Your task to perform on an android device: find snoozed emails in the gmail app Image 0: 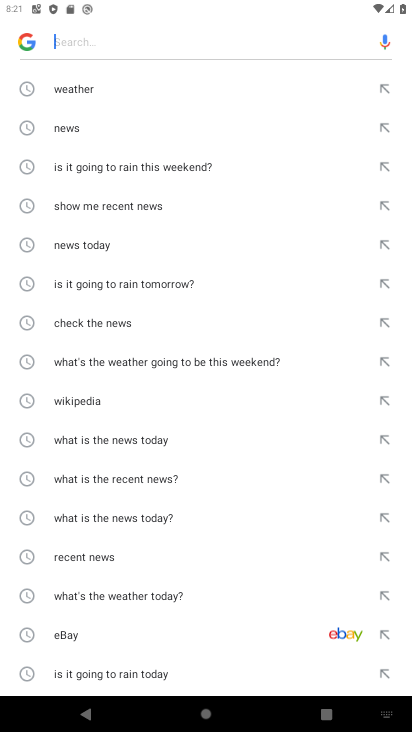
Step 0: press back button
Your task to perform on an android device: find snoozed emails in the gmail app Image 1: 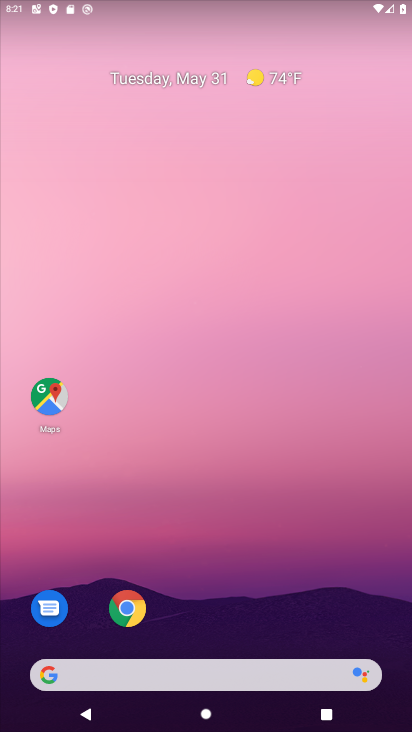
Step 1: drag from (196, 647) to (216, 227)
Your task to perform on an android device: find snoozed emails in the gmail app Image 2: 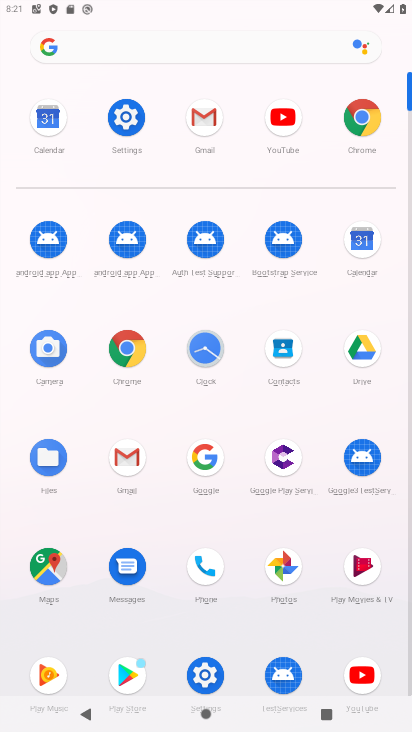
Step 2: click (129, 455)
Your task to perform on an android device: find snoozed emails in the gmail app Image 3: 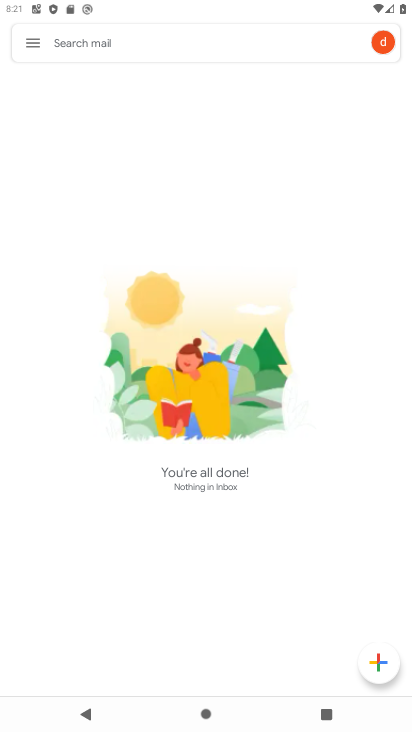
Step 3: click (39, 46)
Your task to perform on an android device: find snoozed emails in the gmail app Image 4: 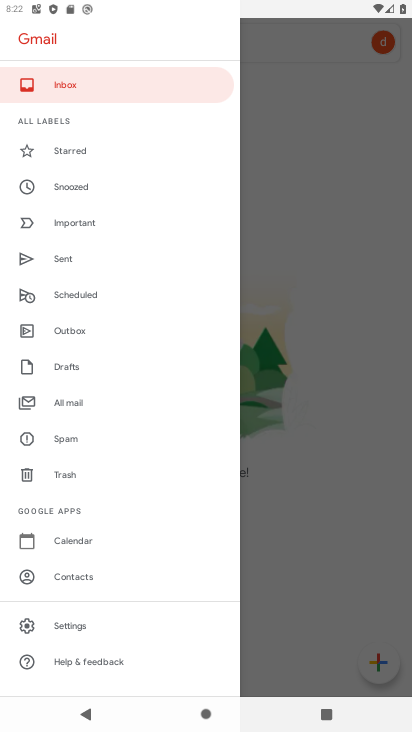
Step 4: click (45, 179)
Your task to perform on an android device: find snoozed emails in the gmail app Image 5: 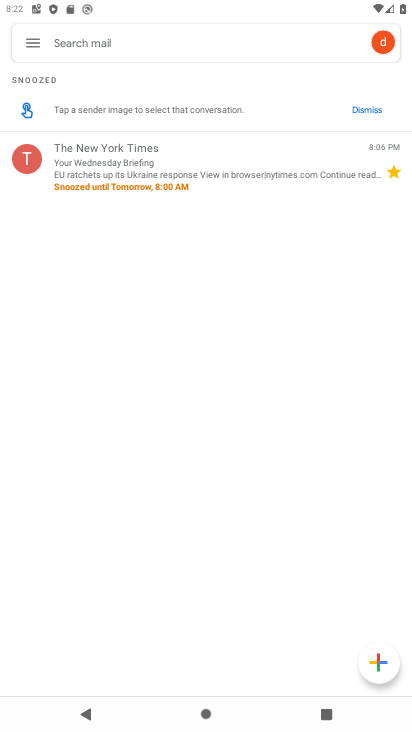
Step 5: task complete